Your task to perform on an android device: change keyboard looks Image 0: 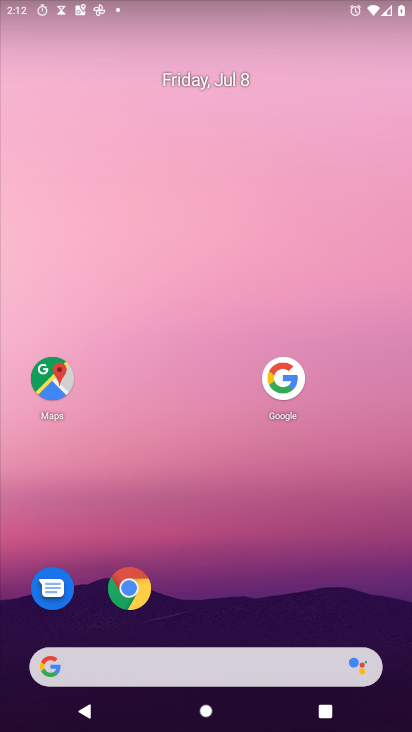
Step 0: drag from (137, 663) to (345, 47)
Your task to perform on an android device: change keyboard looks Image 1: 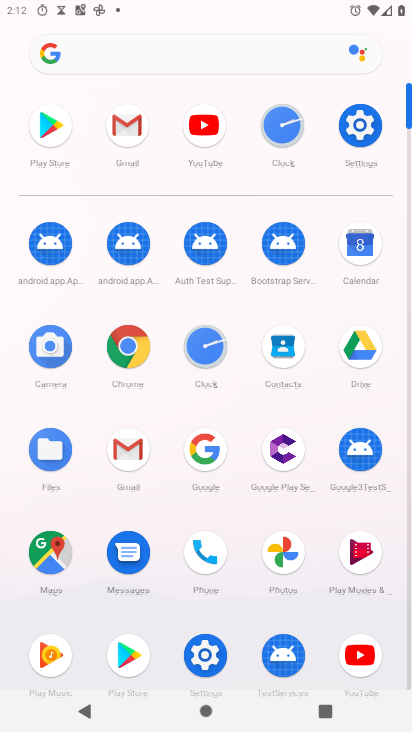
Step 1: click (365, 123)
Your task to perform on an android device: change keyboard looks Image 2: 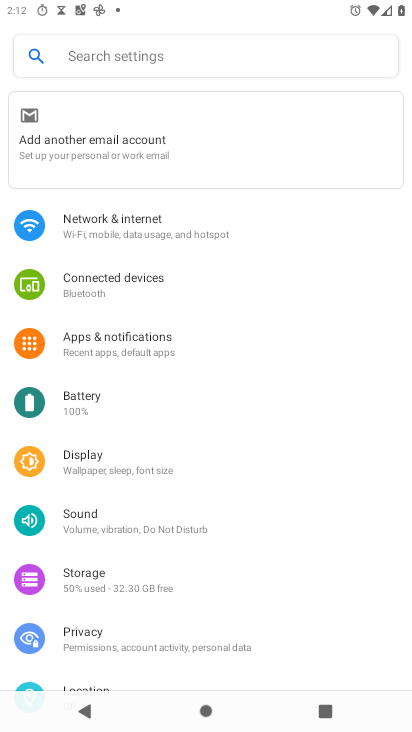
Step 2: drag from (199, 595) to (314, 113)
Your task to perform on an android device: change keyboard looks Image 3: 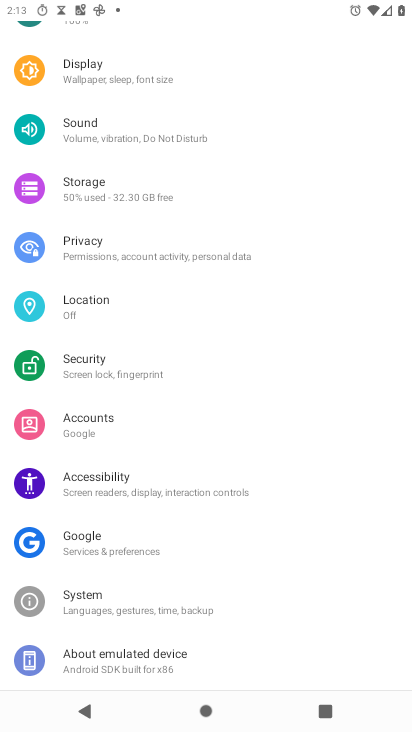
Step 3: click (150, 602)
Your task to perform on an android device: change keyboard looks Image 4: 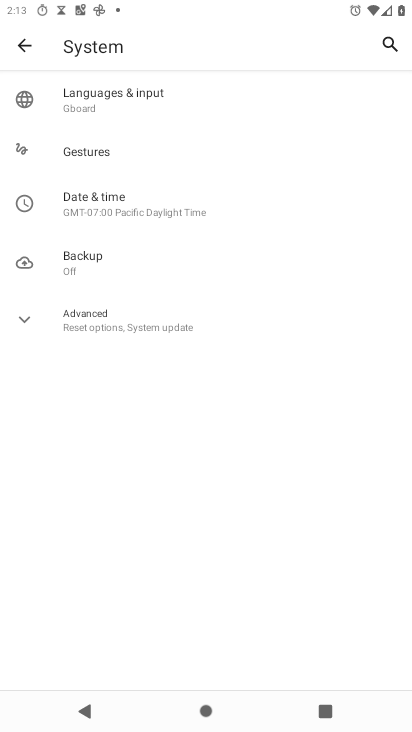
Step 4: click (117, 112)
Your task to perform on an android device: change keyboard looks Image 5: 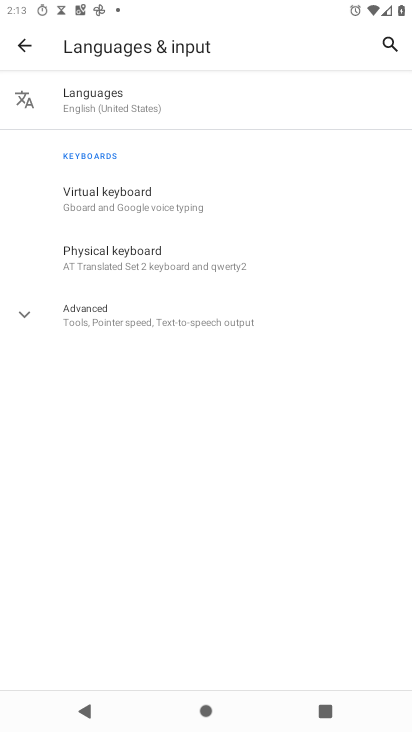
Step 5: click (116, 196)
Your task to perform on an android device: change keyboard looks Image 6: 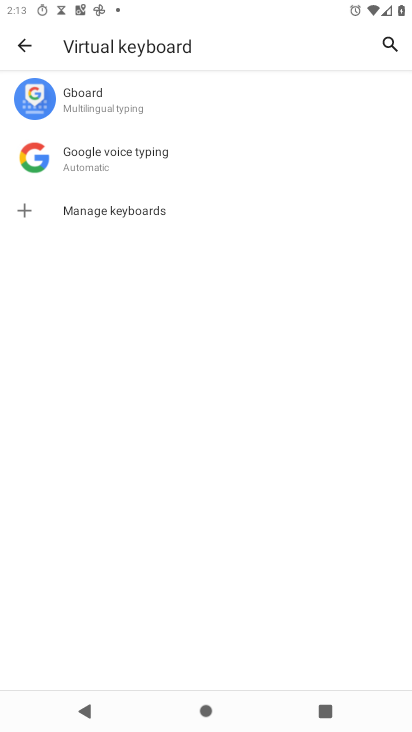
Step 6: click (102, 100)
Your task to perform on an android device: change keyboard looks Image 7: 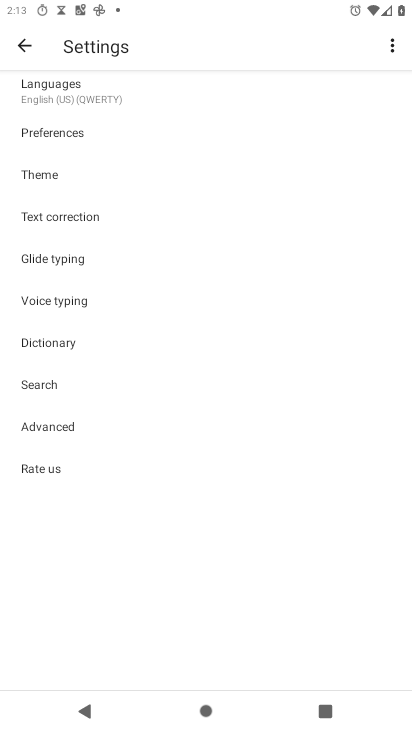
Step 7: click (49, 169)
Your task to perform on an android device: change keyboard looks Image 8: 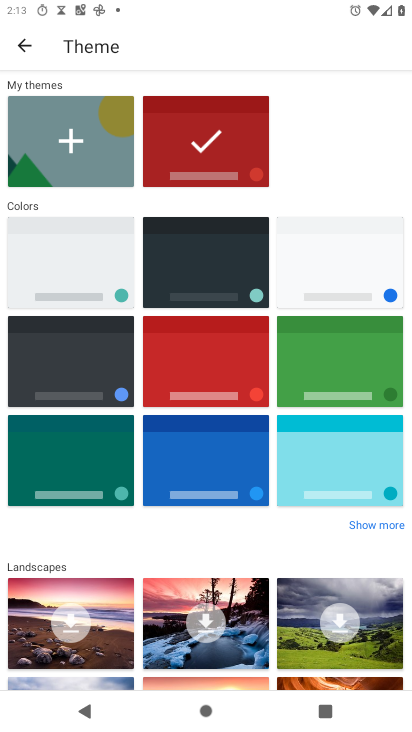
Step 8: click (236, 480)
Your task to perform on an android device: change keyboard looks Image 9: 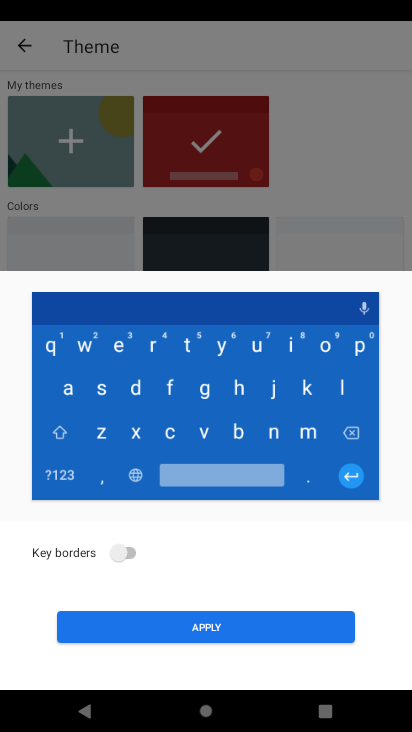
Step 9: click (241, 627)
Your task to perform on an android device: change keyboard looks Image 10: 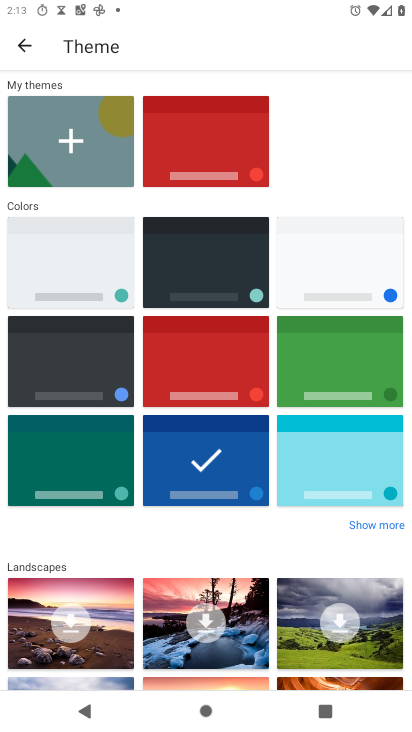
Step 10: click (212, 463)
Your task to perform on an android device: change keyboard looks Image 11: 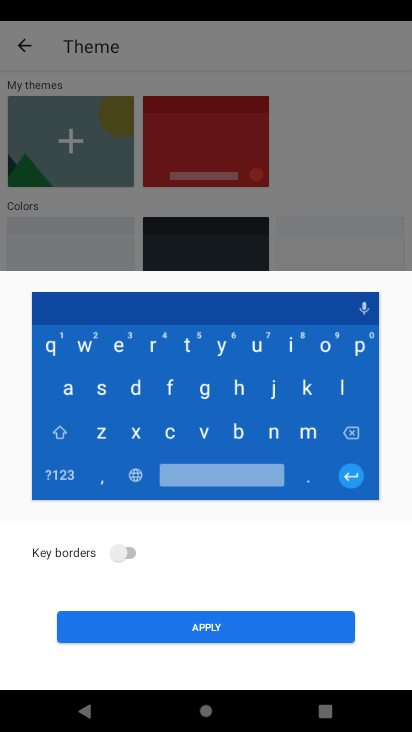
Step 11: click (201, 629)
Your task to perform on an android device: change keyboard looks Image 12: 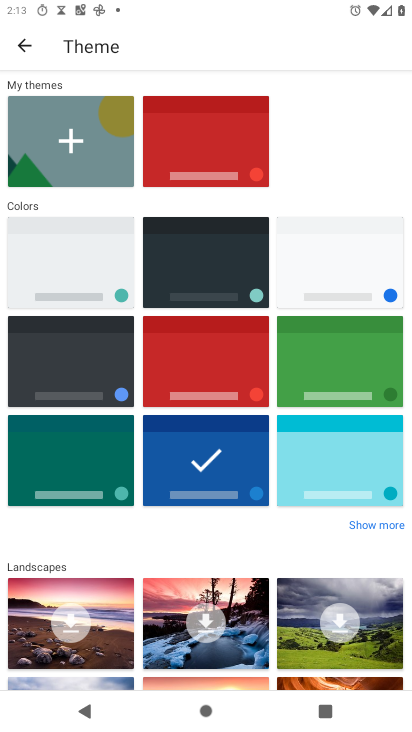
Step 12: task complete